Your task to perform on an android device: uninstall "Google Chat" Image 0: 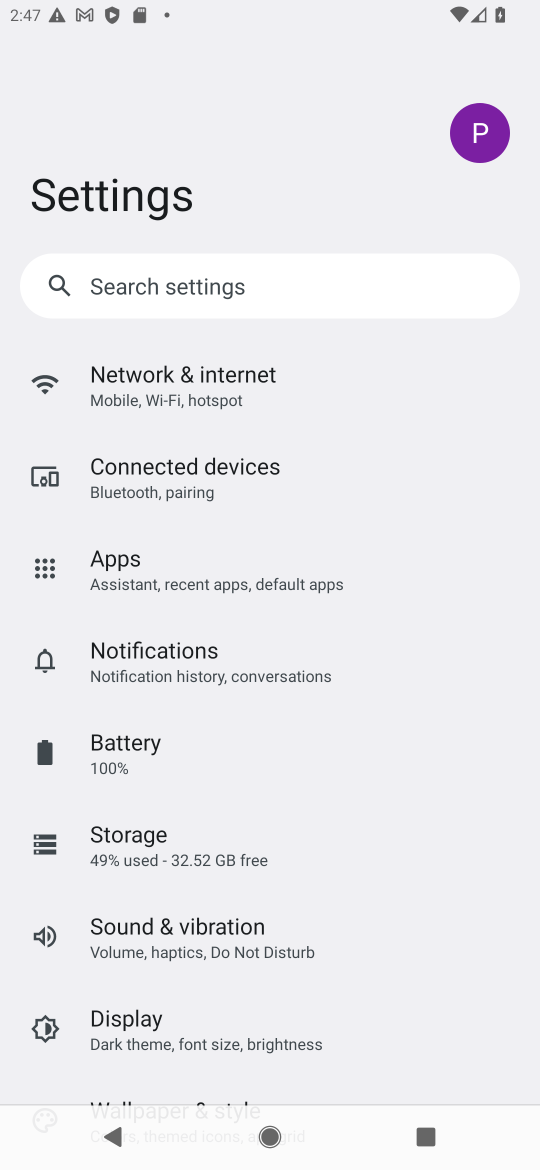
Step 0: press home button
Your task to perform on an android device: uninstall "Google Chat" Image 1: 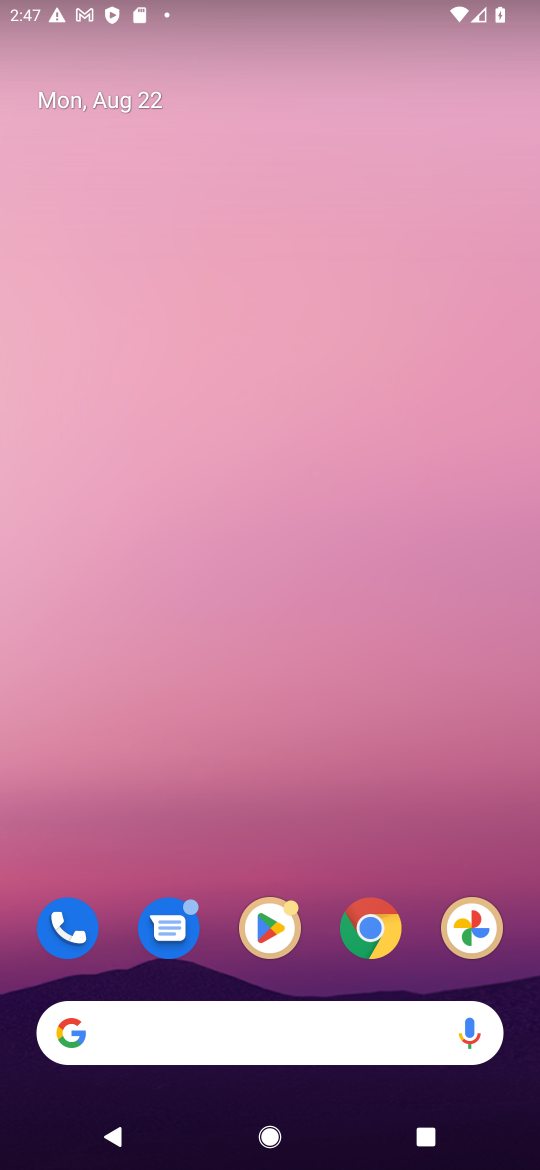
Step 1: click (246, 919)
Your task to perform on an android device: uninstall "Google Chat" Image 2: 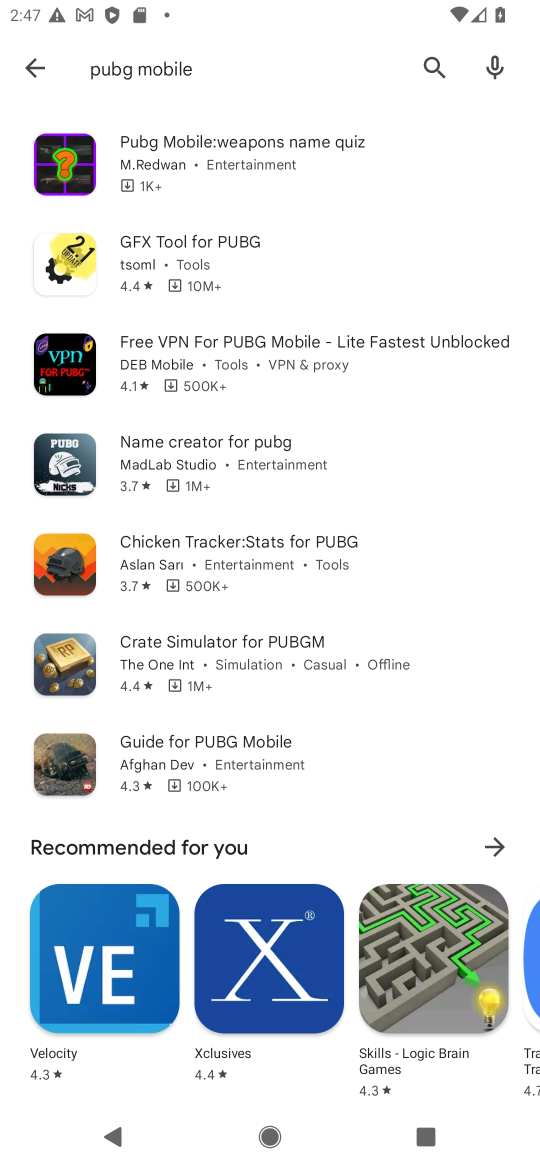
Step 2: click (230, 72)
Your task to perform on an android device: uninstall "Google Chat" Image 3: 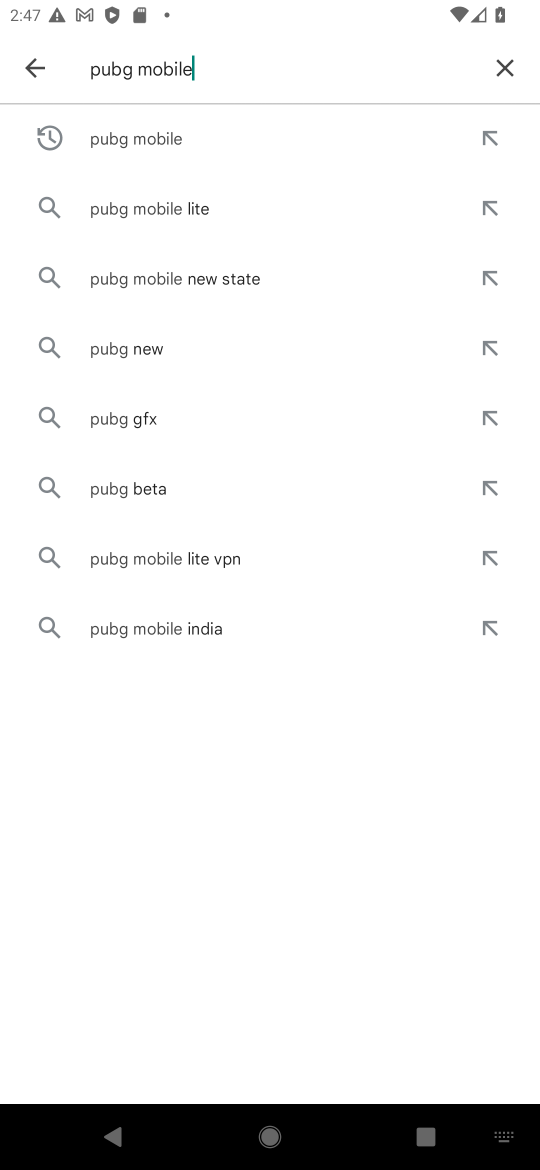
Step 3: click (492, 62)
Your task to perform on an android device: uninstall "Google Chat" Image 4: 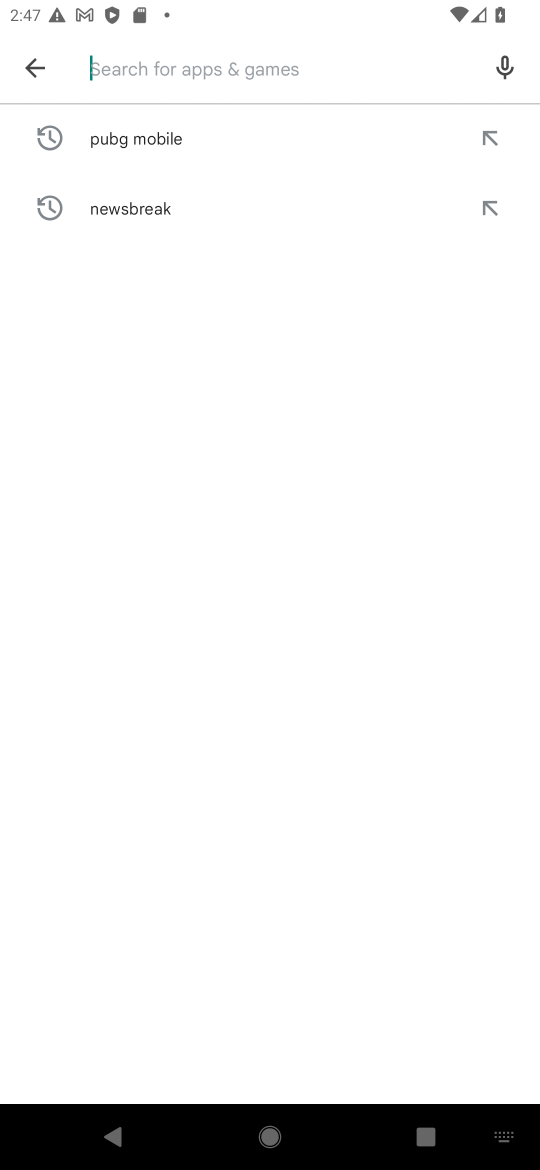
Step 4: type "google chat"
Your task to perform on an android device: uninstall "Google Chat" Image 5: 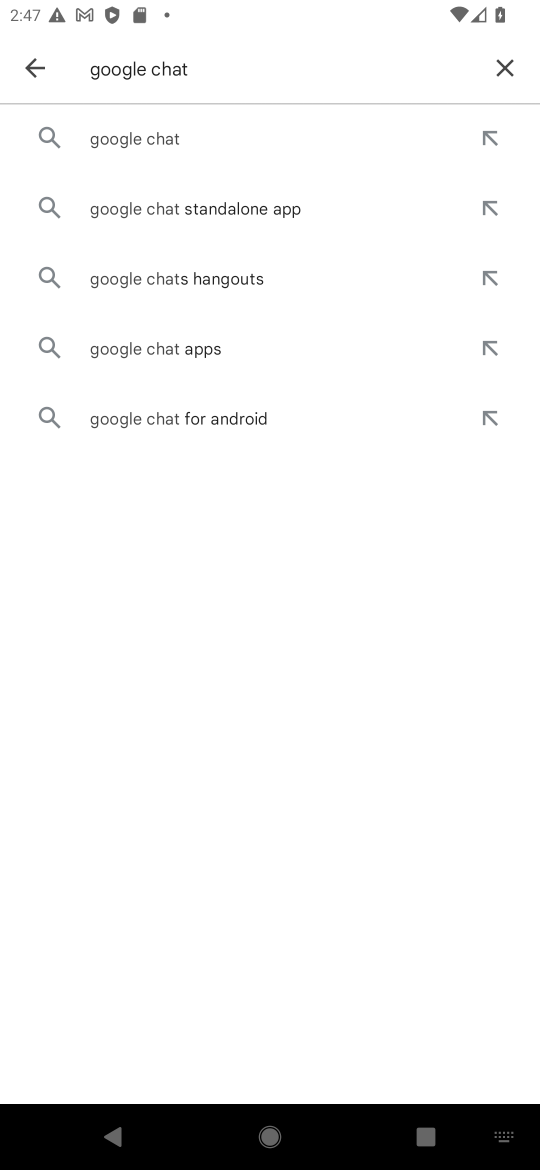
Step 5: click (136, 143)
Your task to perform on an android device: uninstall "Google Chat" Image 6: 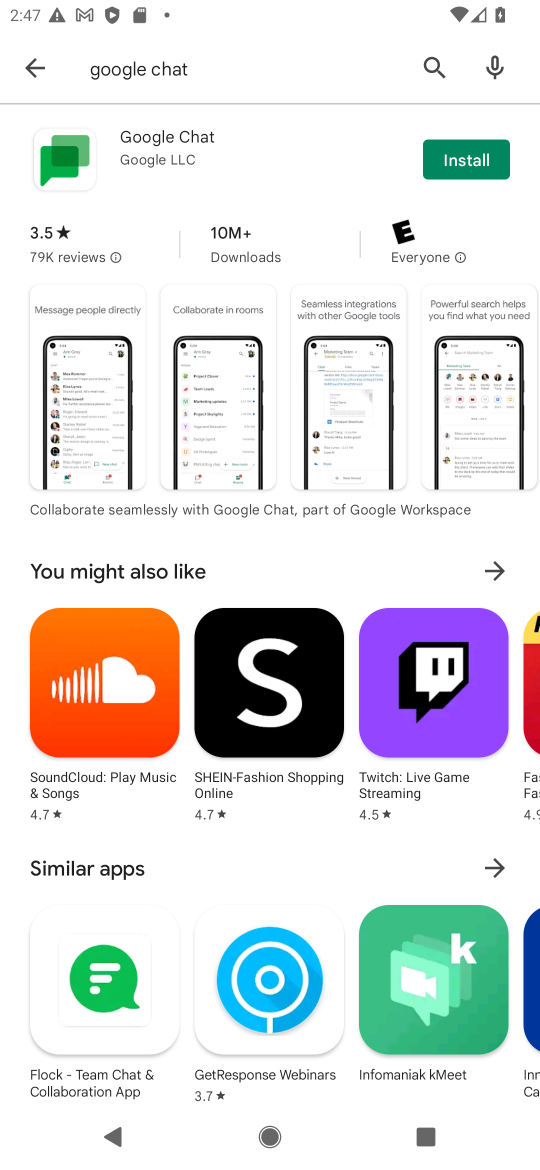
Step 6: task complete